Your task to perform on an android device: Do I have any events this weekend? Image 0: 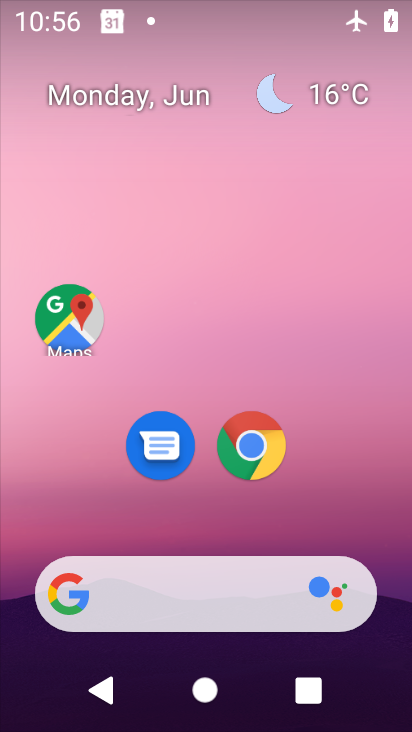
Step 0: drag from (353, 540) to (264, 171)
Your task to perform on an android device: Do I have any events this weekend? Image 1: 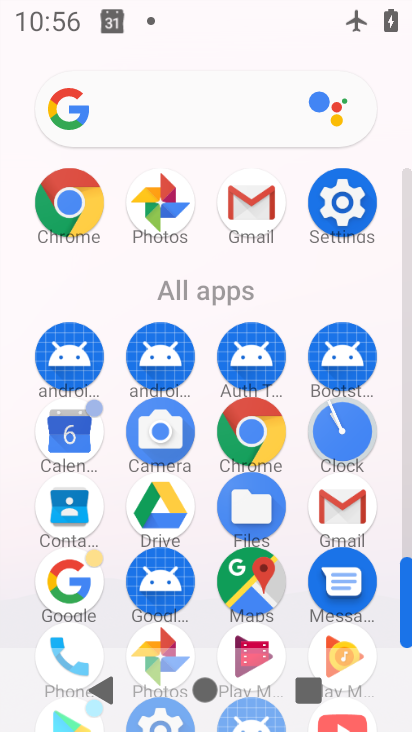
Step 1: click (62, 452)
Your task to perform on an android device: Do I have any events this weekend? Image 2: 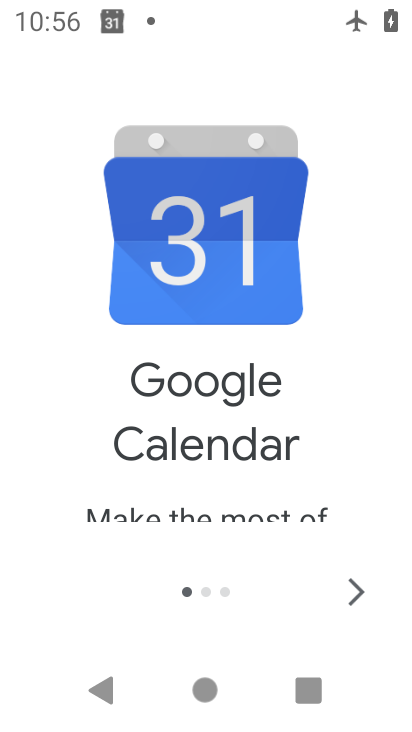
Step 2: click (355, 584)
Your task to perform on an android device: Do I have any events this weekend? Image 3: 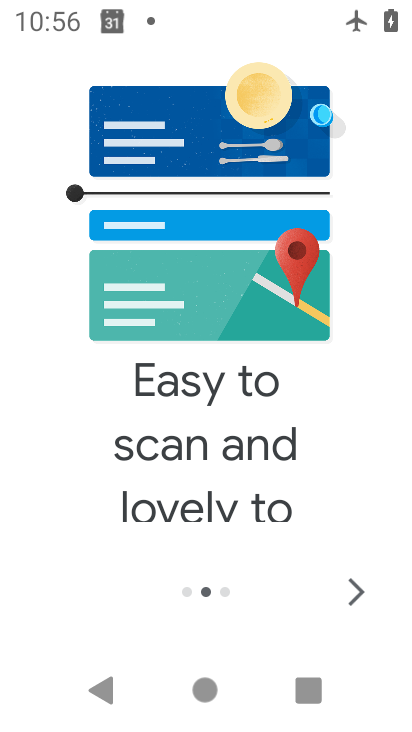
Step 3: click (355, 584)
Your task to perform on an android device: Do I have any events this weekend? Image 4: 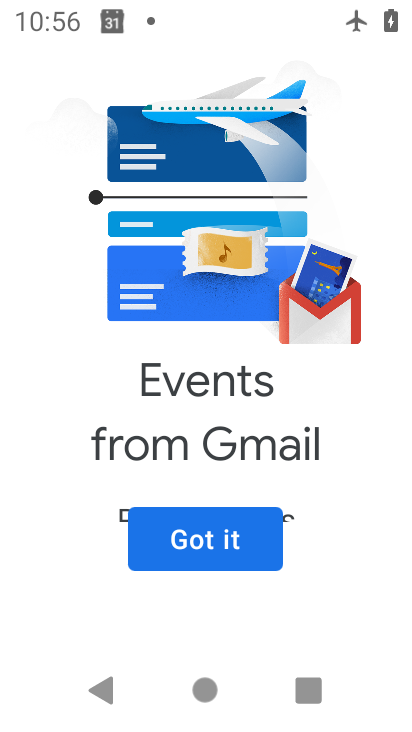
Step 4: click (247, 542)
Your task to perform on an android device: Do I have any events this weekend? Image 5: 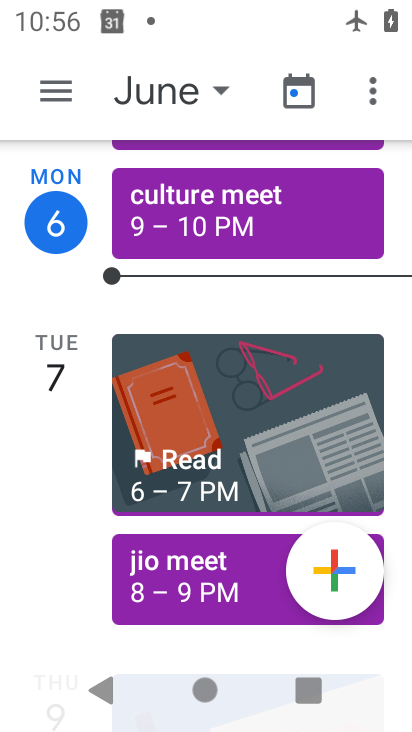
Step 5: click (61, 101)
Your task to perform on an android device: Do I have any events this weekend? Image 6: 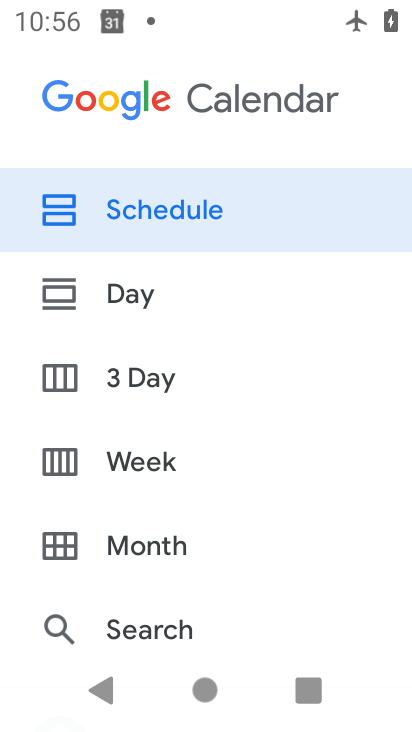
Step 6: click (242, 227)
Your task to perform on an android device: Do I have any events this weekend? Image 7: 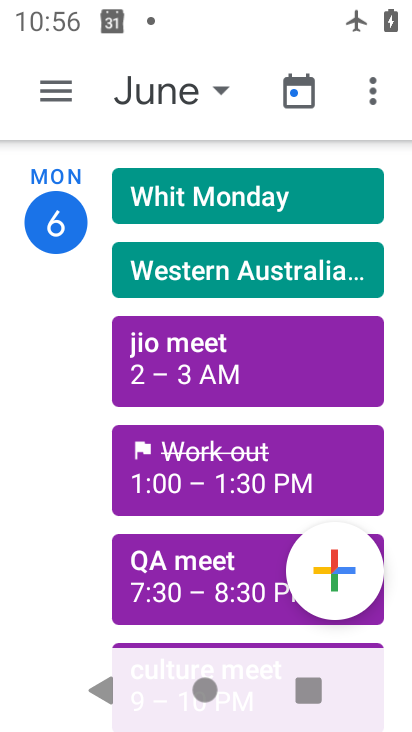
Step 7: task complete